Your task to perform on an android device: turn on airplane mode Image 0: 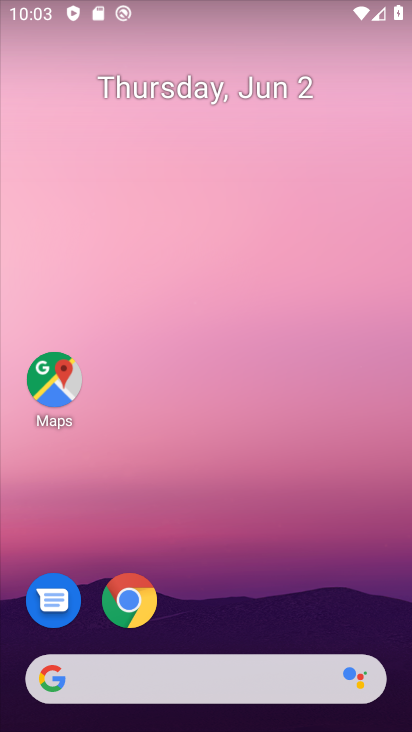
Step 0: press home button
Your task to perform on an android device: turn on airplane mode Image 1: 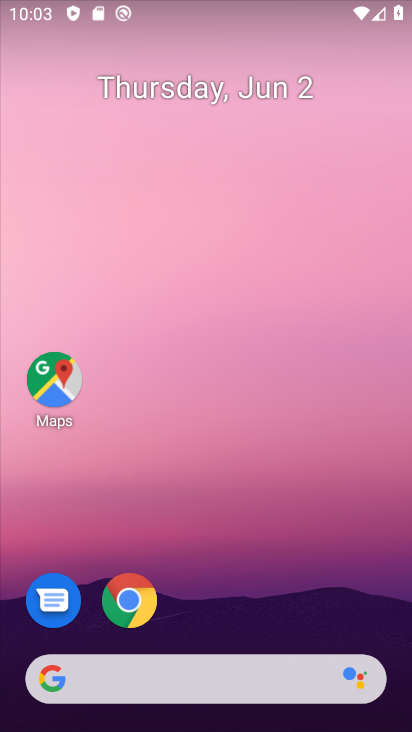
Step 1: drag from (168, 683) to (303, 97)
Your task to perform on an android device: turn on airplane mode Image 2: 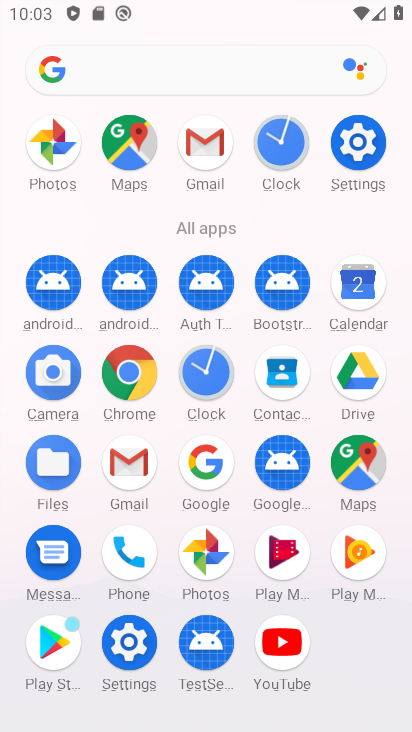
Step 2: click (364, 148)
Your task to perform on an android device: turn on airplane mode Image 3: 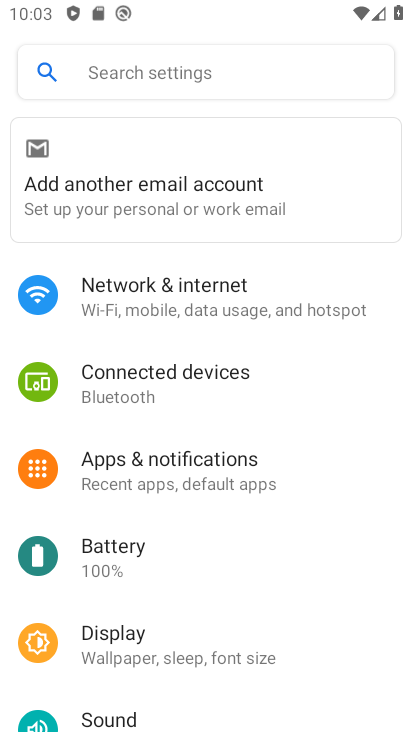
Step 3: click (201, 287)
Your task to perform on an android device: turn on airplane mode Image 4: 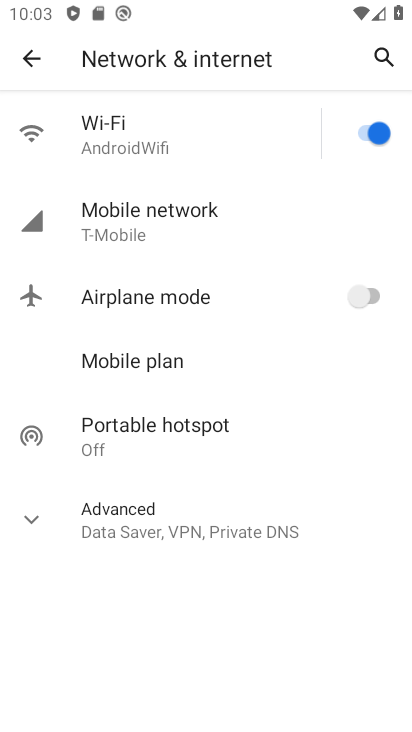
Step 4: click (374, 295)
Your task to perform on an android device: turn on airplane mode Image 5: 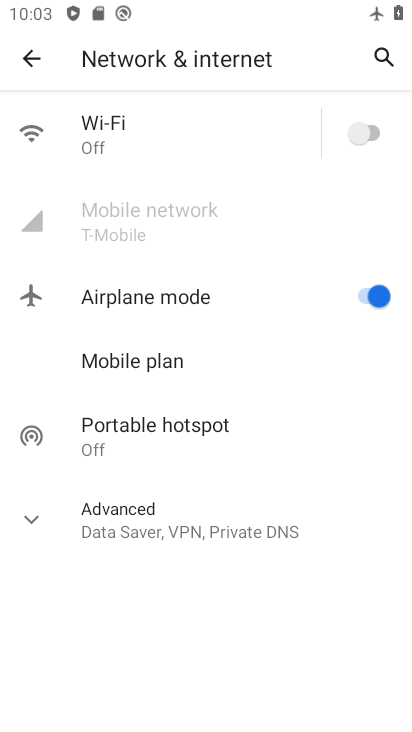
Step 5: task complete